Your task to perform on an android device: Open my contact list Image 0: 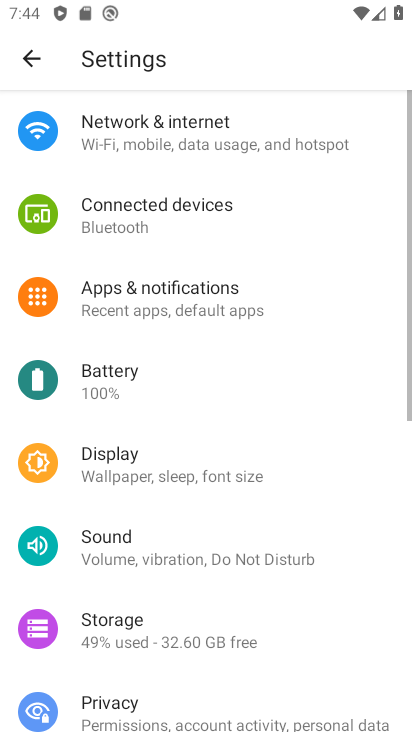
Step 0: press home button
Your task to perform on an android device: Open my contact list Image 1: 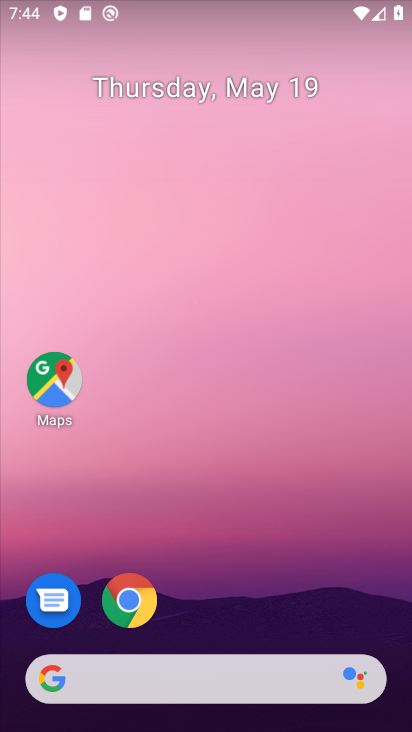
Step 1: drag from (249, 613) to (205, 40)
Your task to perform on an android device: Open my contact list Image 2: 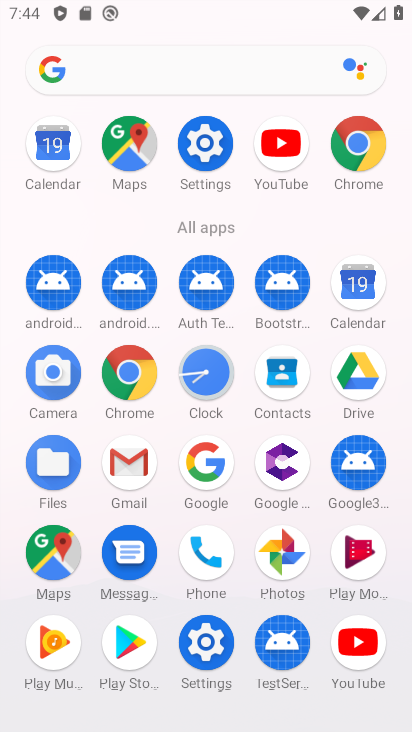
Step 2: click (297, 422)
Your task to perform on an android device: Open my contact list Image 3: 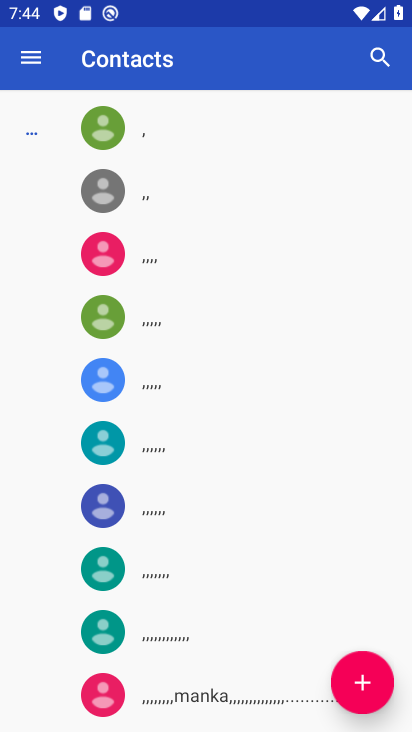
Step 3: task complete